Your task to perform on an android device: Create a new label 'friends' in Gmail Image 0: 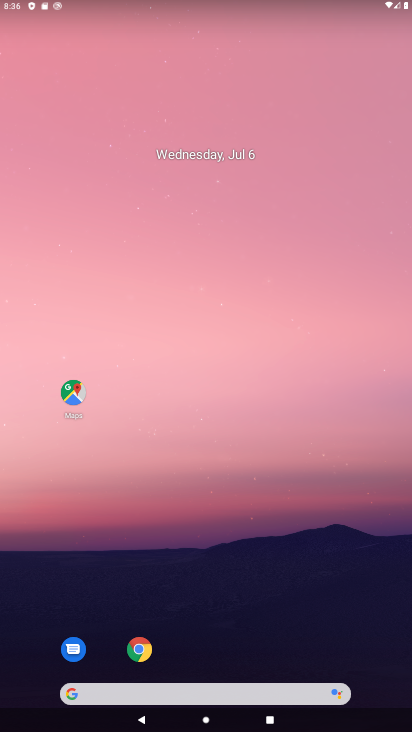
Step 0: drag from (237, 656) to (210, 396)
Your task to perform on an android device: Create a new label 'friends' in Gmail Image 1: 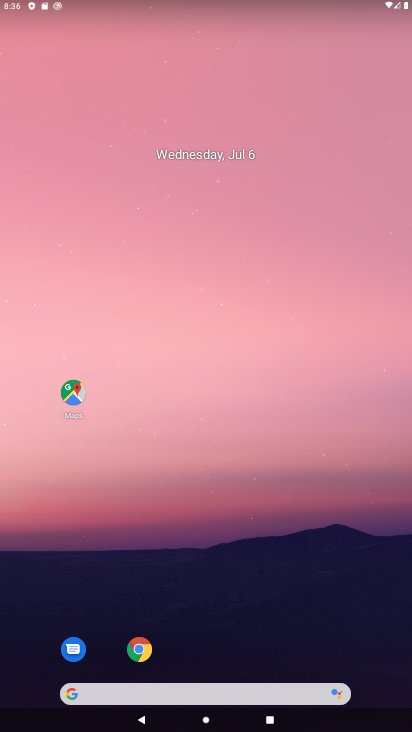
Step 1: drag from (216, 624) to (304, 0)
Your task to perform on an android device: Create a new label 'friends' in Gmail Image 2: 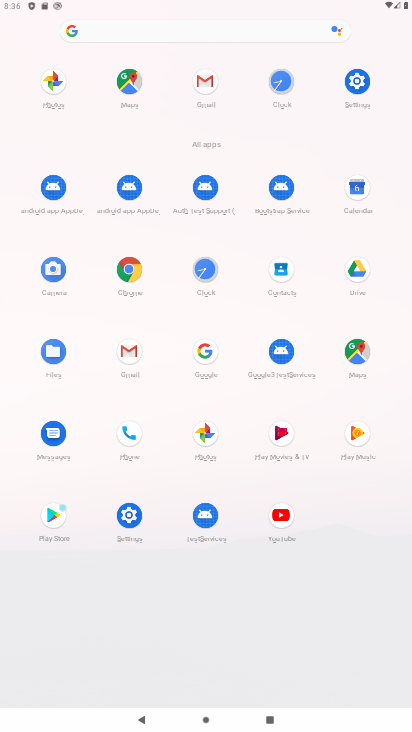
Step 2: click (201, 86)
Your task to perform on an android device: Create a new label 'friends' in Gmail Image 3: 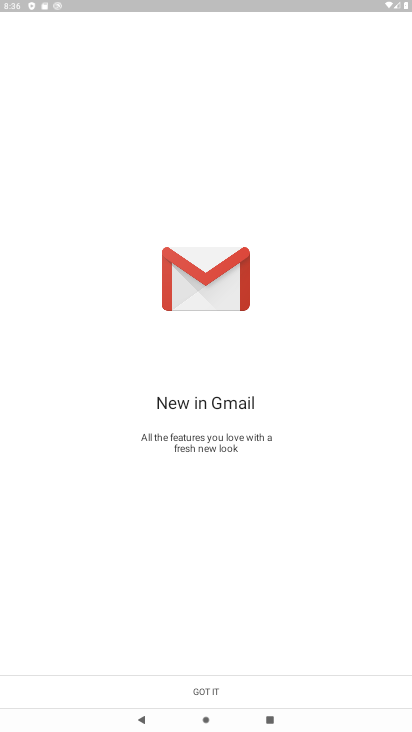
Step 3: click (203, 693)
Your task to perform on an android device: Create a new label 'friends' in Gmail Image 4: 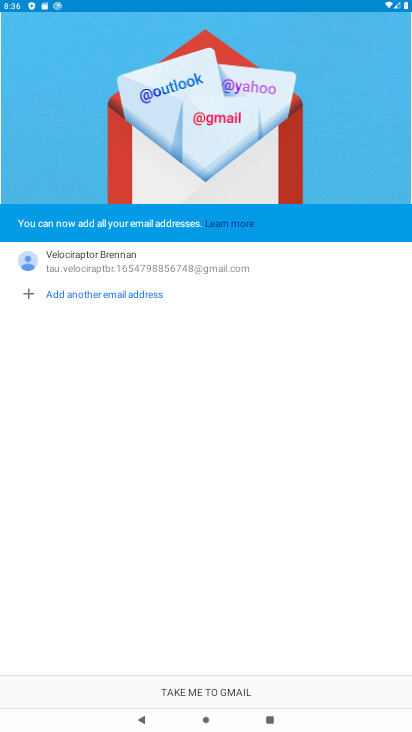
Step 4: click (203, 693)
Your task to perform on an android device: Create a new label 'friends' in Gmail Image 5: 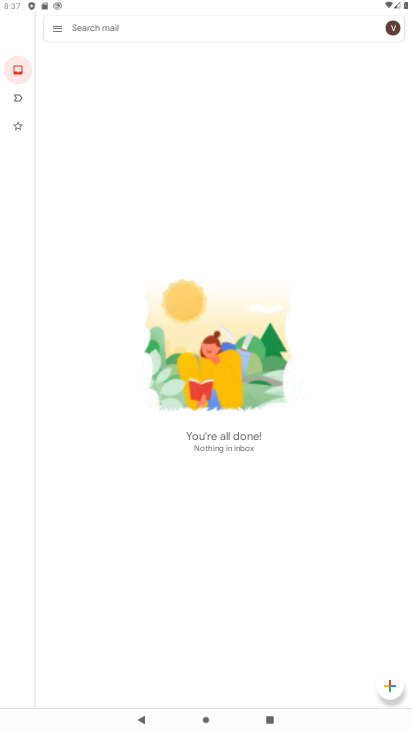
Step 5: task complete